Your task to perform on an android device: Go to eBay Image 0: 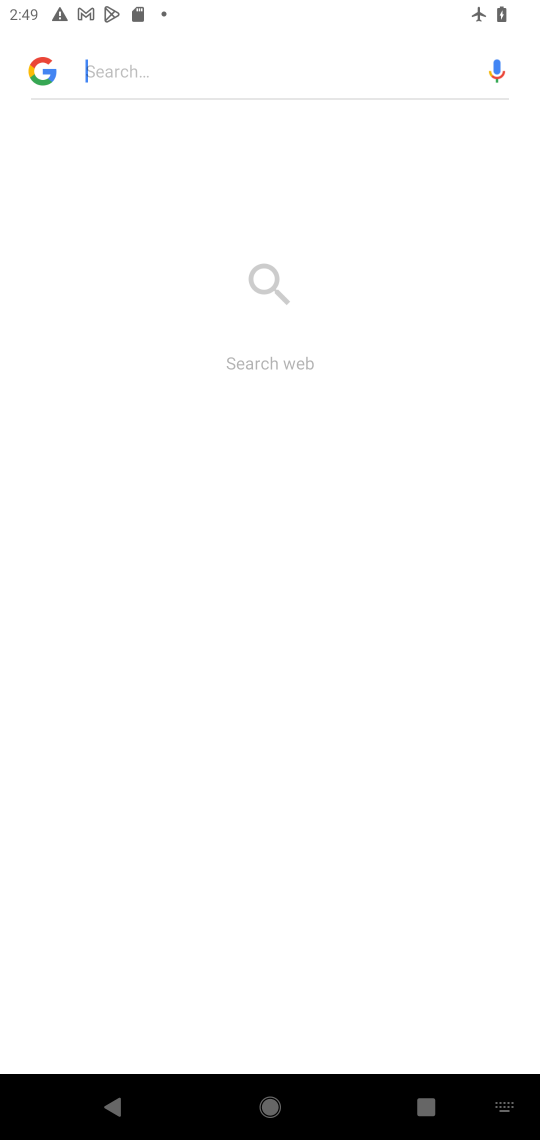
Step 0: press home button
Your task to perform on an android device: Go to eBay Image 1: 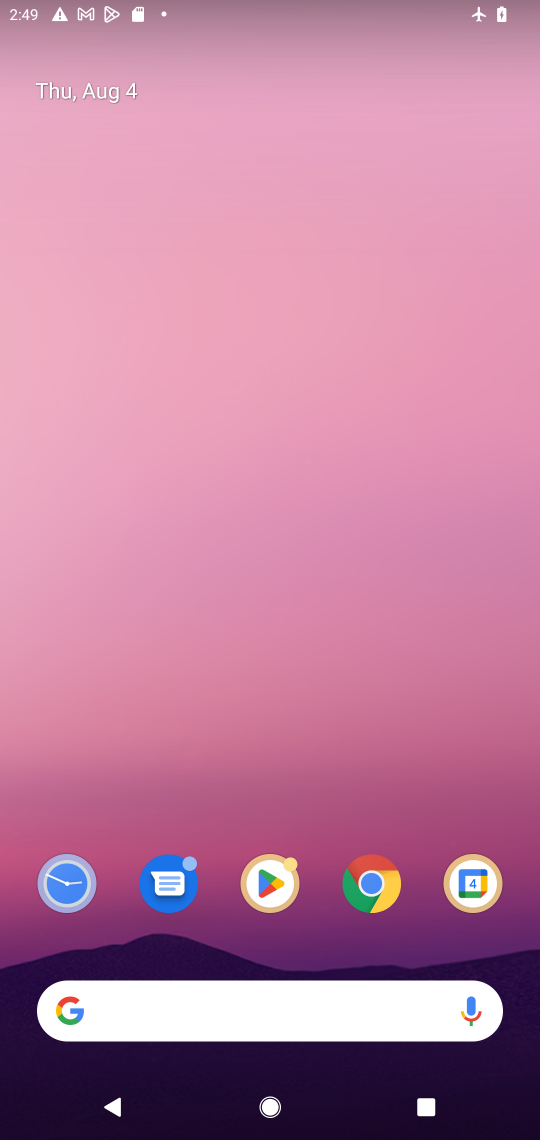
Step 1: click (377, 893)
Your task to perform on an android device: Go to eBay Image 2: 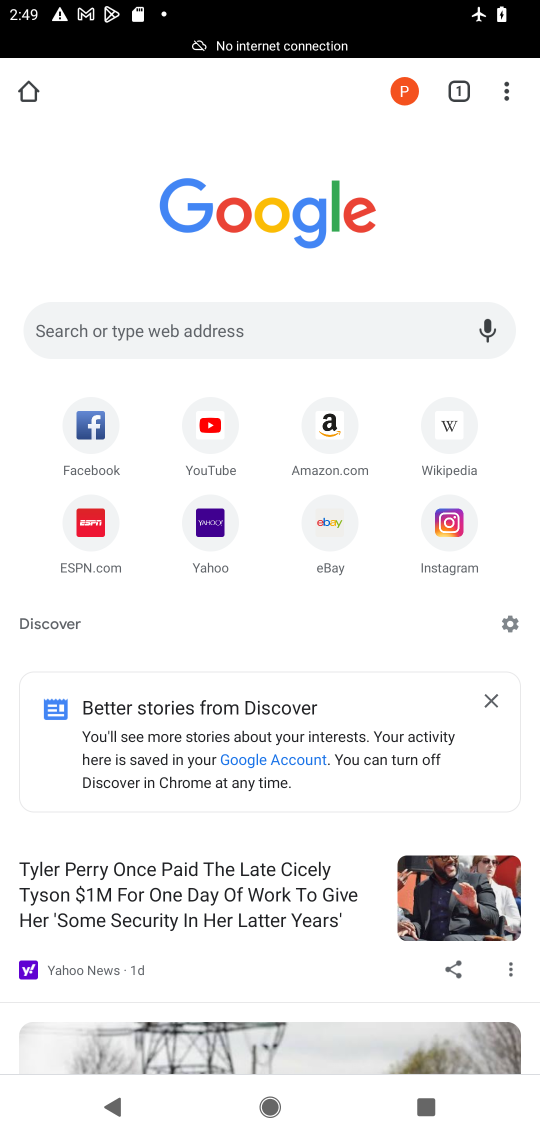
Step 2: click (328, 533)
Your task to perform on an android device: Go to eBay Image 3: 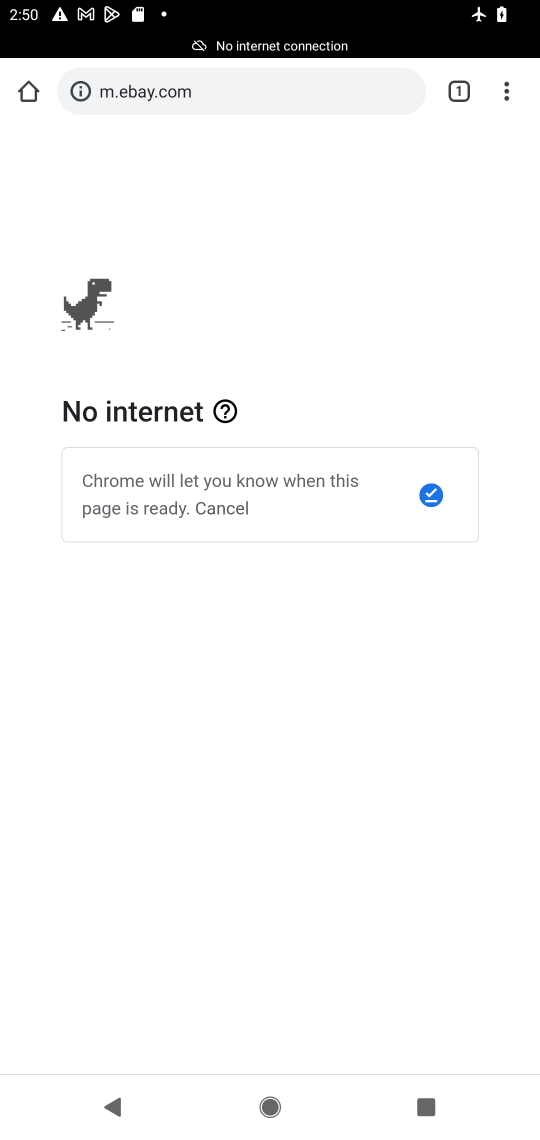
Step 3: task complete